Your task to perform on an android device: Go to Wikipedia Image 0: 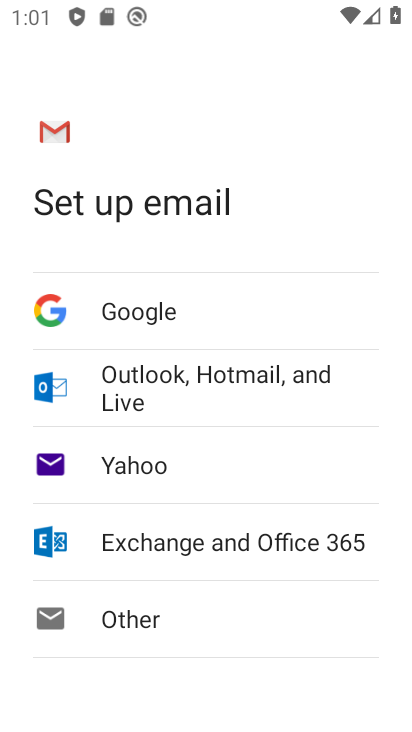
Step 0: press home button
Your task to perform on an android device: Go to Wikipedia Image 1: 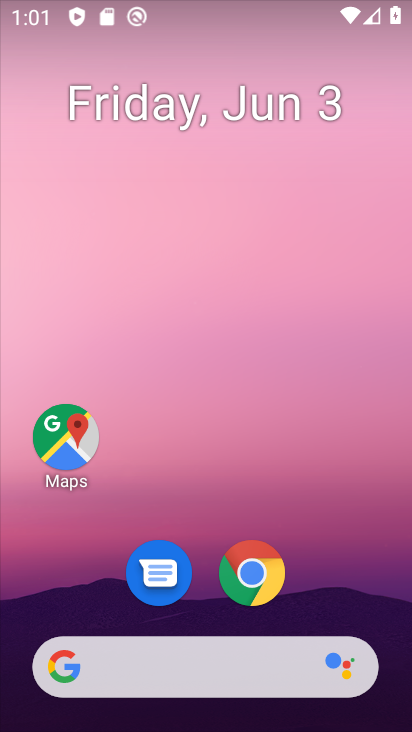
Step 1: drag from (371, 577) to (363, 136)
Your task to perform on an android device: Go to Wikipedia Image 2: 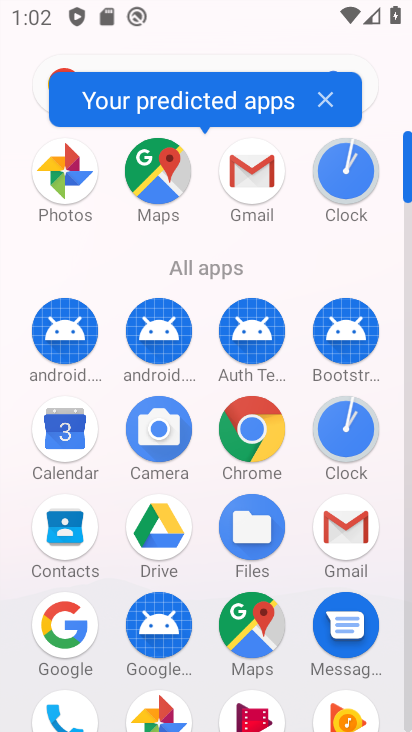
Step 2: click (255, 445)
Your task to perform on an android device: Go to Wikipedia Image 3: 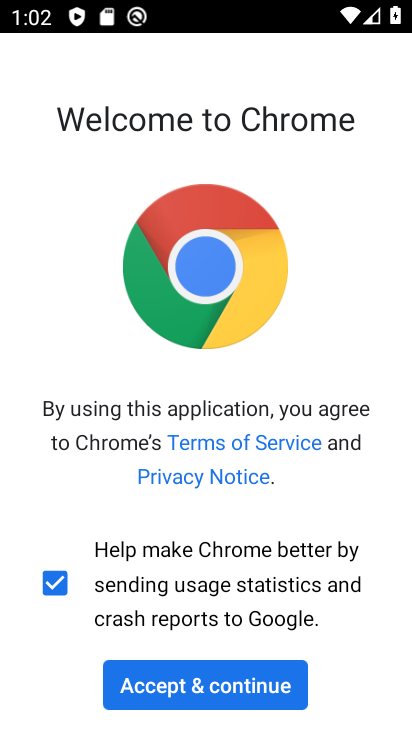
Step 3: click (241, 688)
Your task to perform on an android device: Go to Wikipedia Image 4: 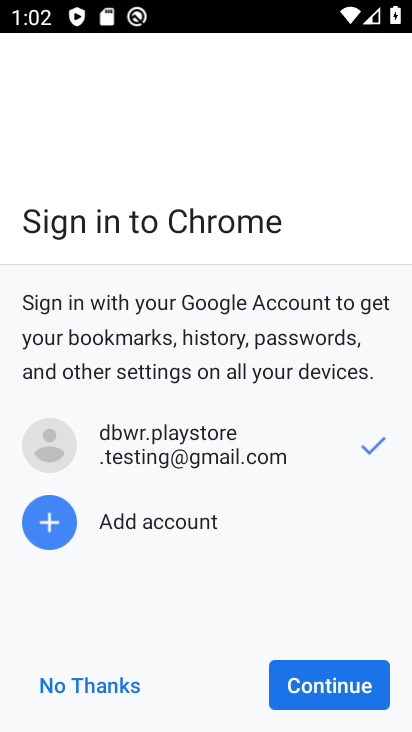
Step 4: click (319, 698)
Your task to perform on an android device: Go to Wikipedia Image 5: 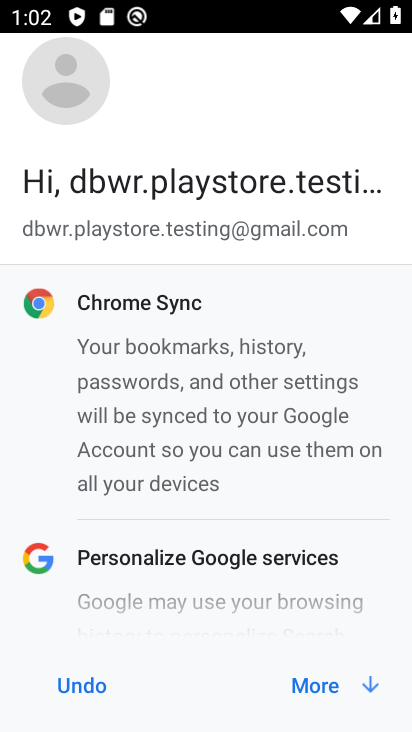
Step 5: click (319, 689)
Your task to perform on an android device: Go to Wikipedia Image 6: 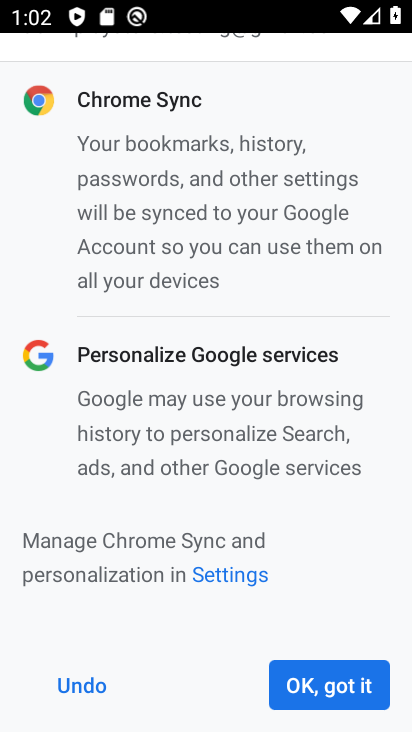
Step 6: click (332, 690)
Your task to perform on an android device: Go to Wikipedia Image 7: 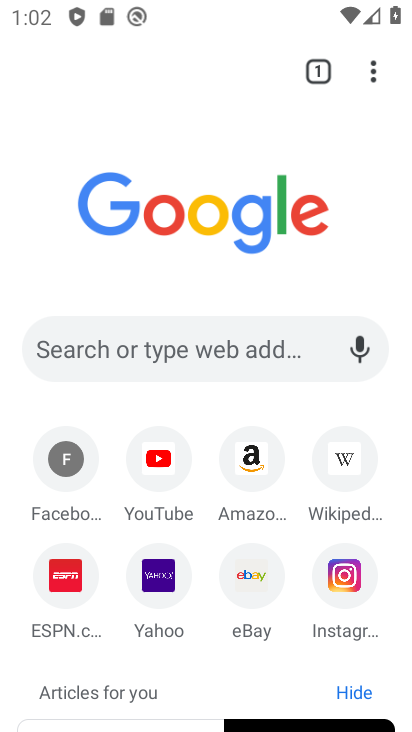
Step 7: click (342, 482)
Your task to perform on an android device: Go to Wikipedia Image 8: 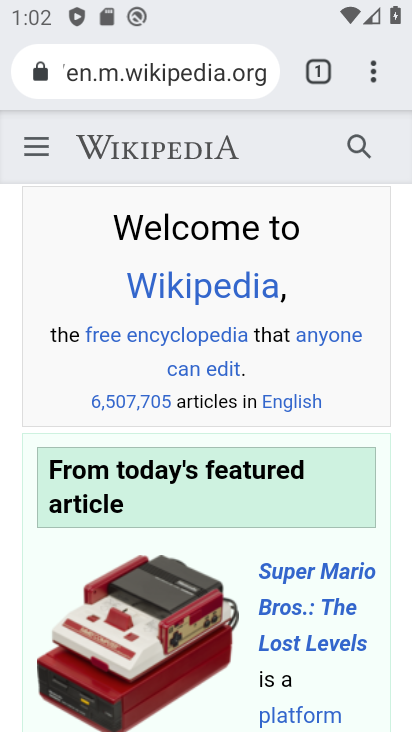
Step 8: task complete